Your task to perform on an android device: check android version Image 0: 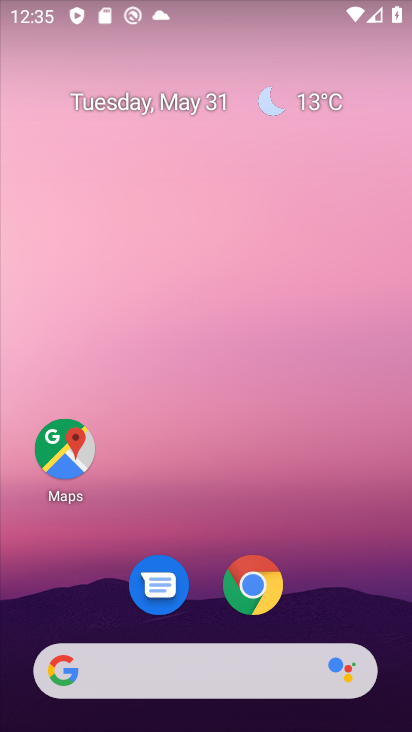
Step 0: click (204, 667)
Your task to perform on an android device: check android version Image 1: 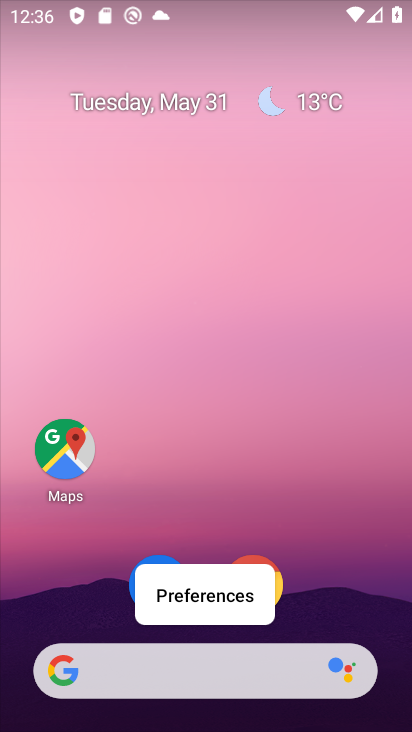
Step 1: drag from (283, 483) to (303, 75)
Your task to perform on an android device: check android version Image 2: 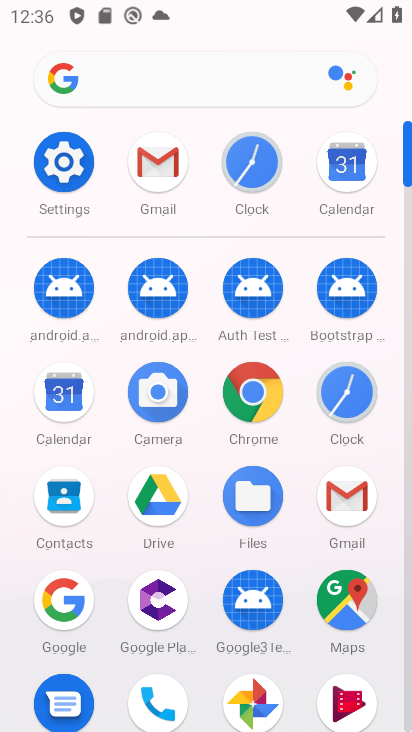
Step 2: click (76, 167)
Your task to perform on an android device: check android version Image 3: 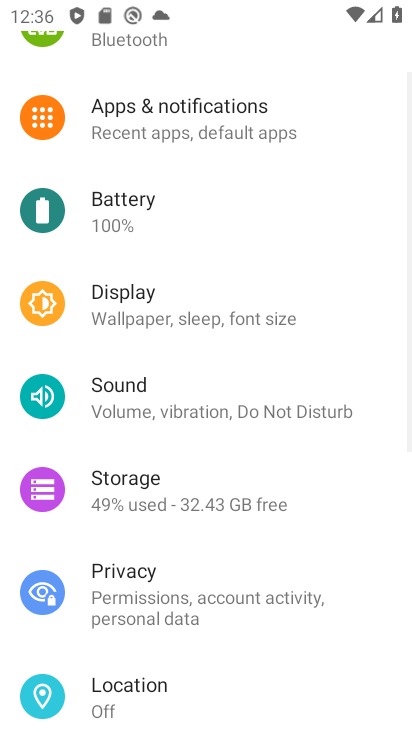
Step 3: drag from (219, 505) to (260, 92)
Your task to perform on an android device: check android version Image 4: 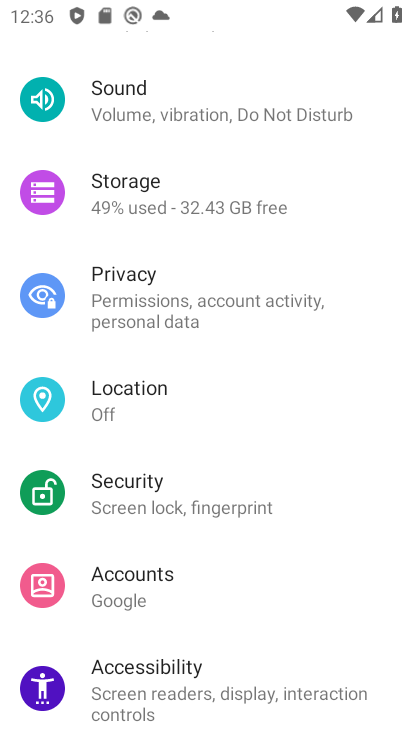
Step 4: drag from (247, 540) to (258, 217)
Your task to perform on an android device: check android version Image 5: 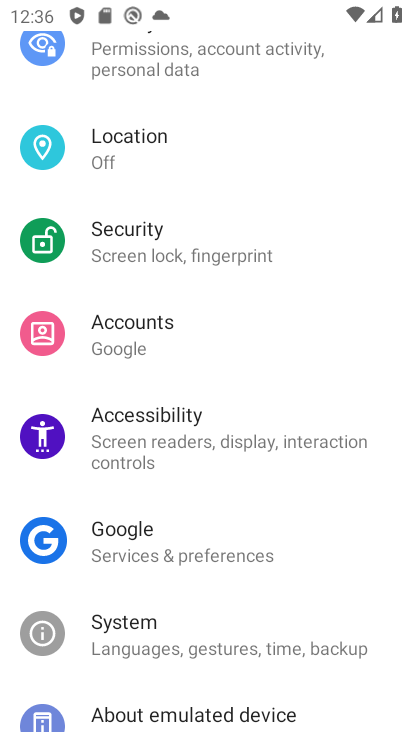
Step 5: drag from (236, 481) to (245, 236)
Your task to perform on an android device: check android version Image 6: 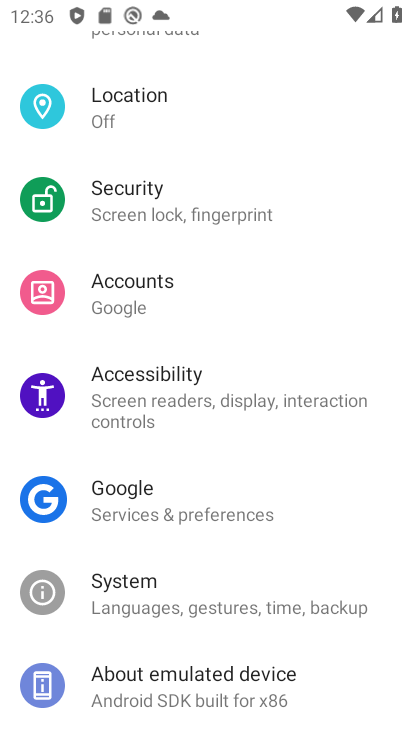
Step 6: click (189, 674)
Your task to perform on an android device: check android version Image 7: 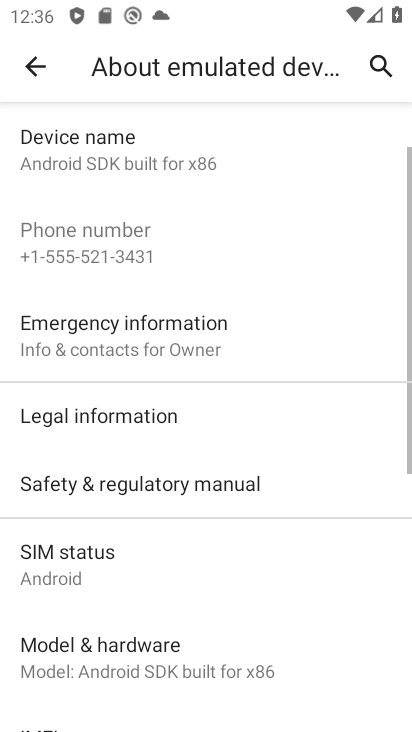
Step 7: drag from (262, 578) to (309, 100)
Your task to perform on an android device: check android version Image 8: 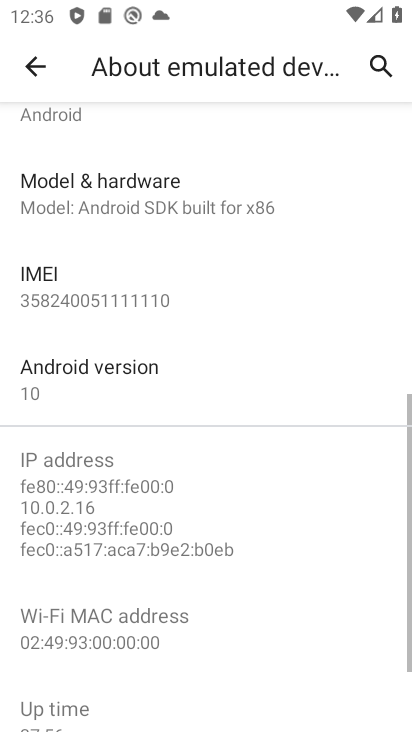
Step 8: click (252, 391)
Your task to perform on an android device: check android version Image 9: 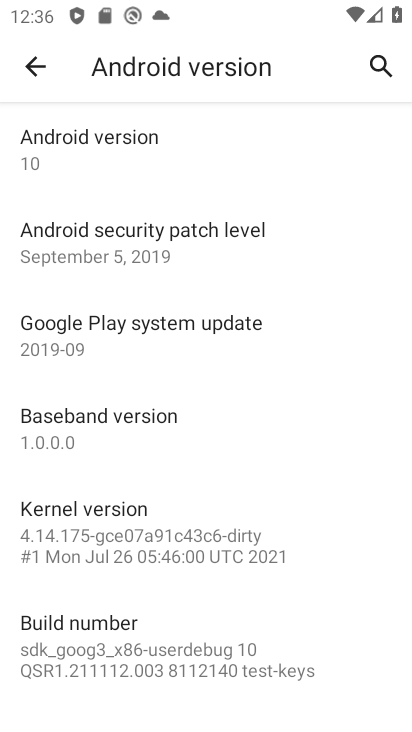
Step 9: task complete